Your task to perform on an android device: Show me productivity apps on the Play Store Image 0: 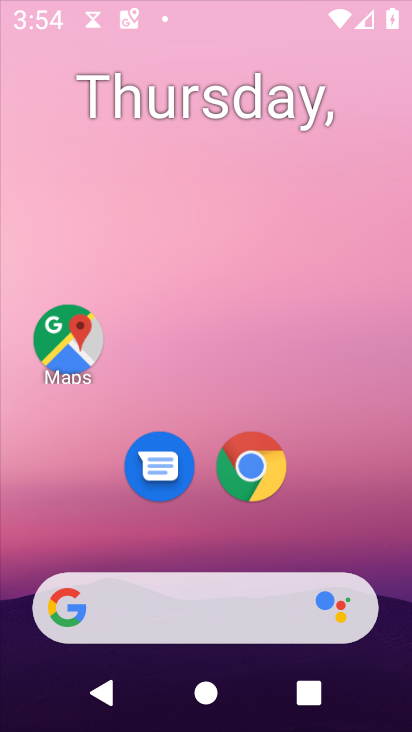
Step 0: drag from (332, 548) to (318, 26)
Your task to perform on an android device: Show me productivity apps on the Play Store Image 1: 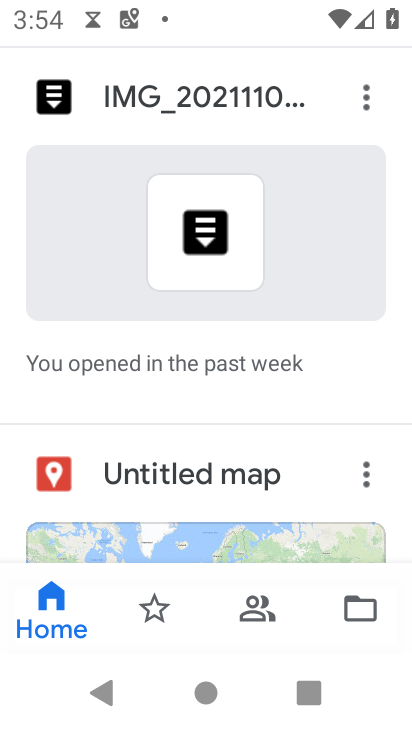
Step 1: press home button
Your task to perform on an android device: Show me productivity apps on the Play Store Image 2: 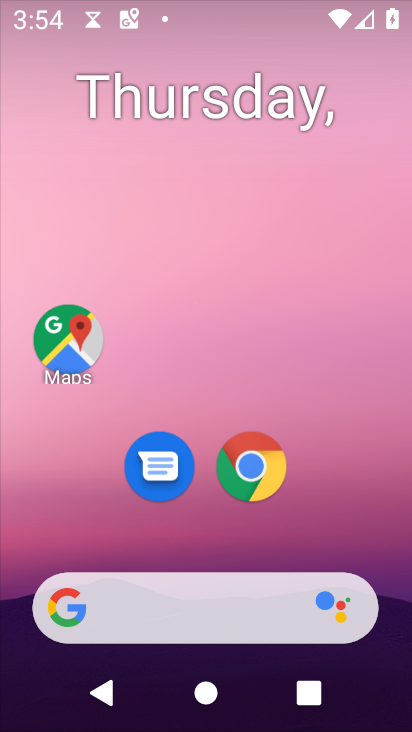
Step 2: drag from (280, 588) to (337, 1)
Your task to perform on an android device: Show me productivity apps on the Play Store Image 3: 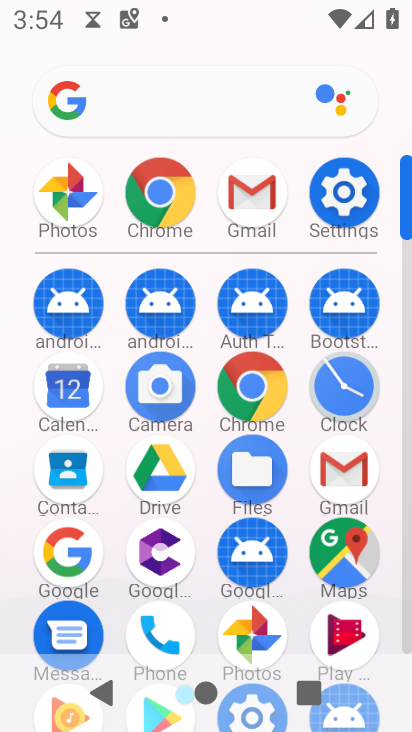
Step 3: drag from (300, 636) to (290, 287)
Your task to perform on an android device: Show me productivity apps on the Play Store Image 4: 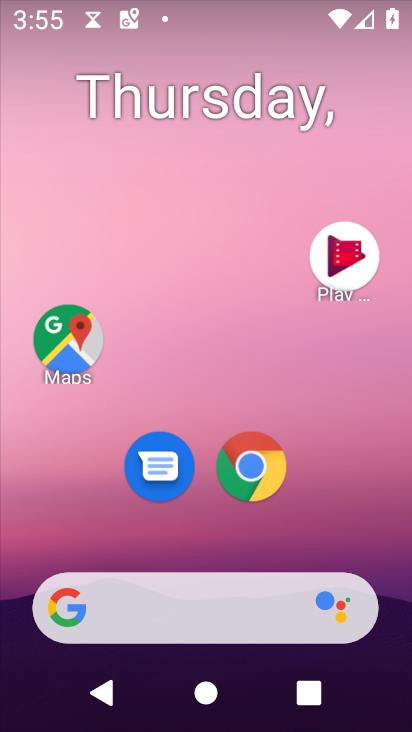
Step 4: drag from (238, 570) to (265, 48)
Your task to perform on an android device: Show me productivity apps on the Play Store Image 5: 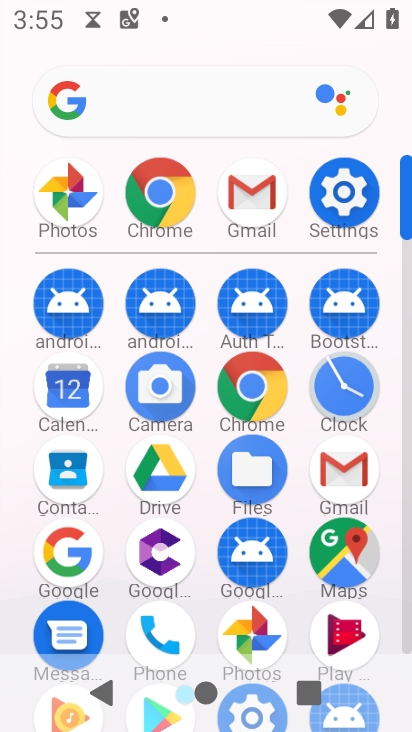
Step 5: drag from (286, 613) to (297, 246)
Your task to perform on an android device: Show me productivity apps on the Play Store Image 6: 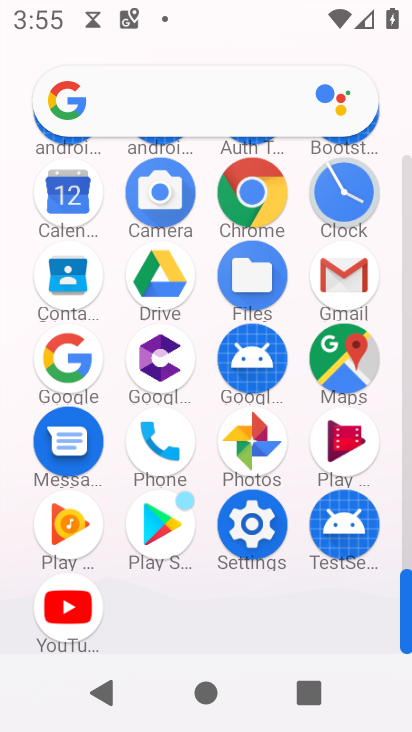
Step 6: click (173, 525)
Your task to perform on an android device: Show me productivity apps on the Play Store Image 7: 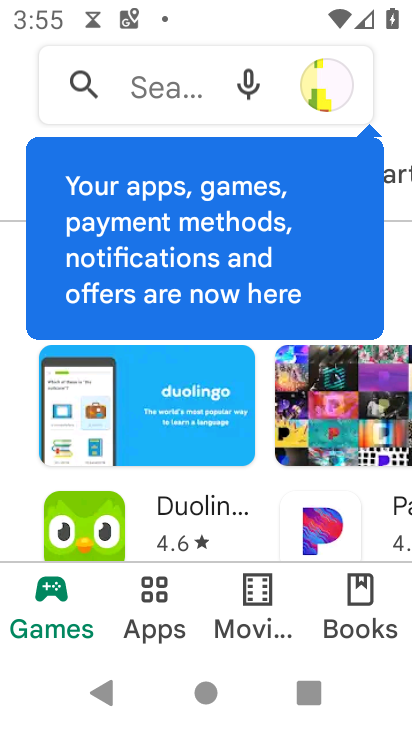
Step 7: drag from (230, 544) to (230, 230)
Your task to perform on an android device: Show me productivity apps on the Play Store Image 8: 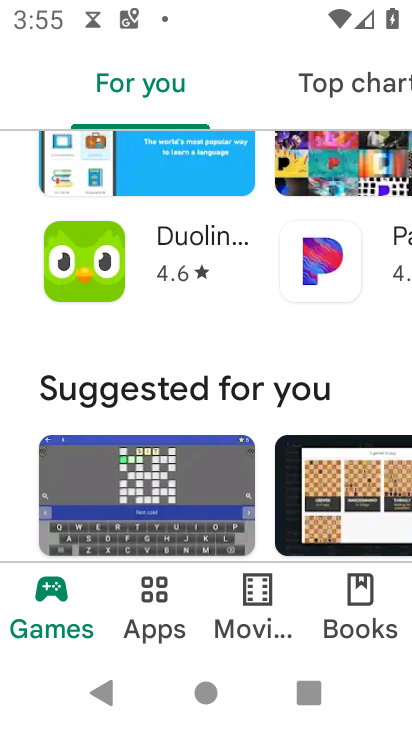
Step 8: click (173, 607)
Your task to perform on an android device: Show me productivity apps on the Play Store Image 9: 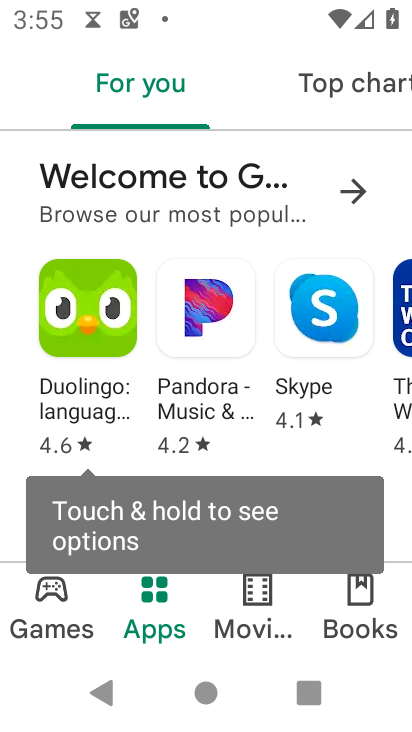
Step 9: task complete